Your task to perform on an android device: toggle airplane mode Image 0: 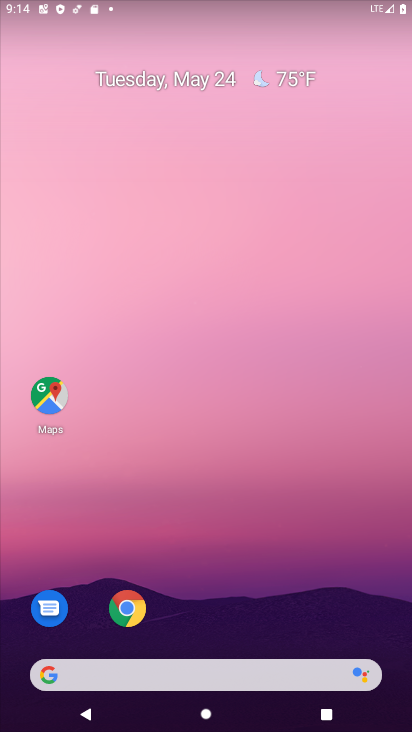
Step 0: drag from (287, 438) to (226, 30)
Your task to perform on an android device: toggle airplane mode Image 1: 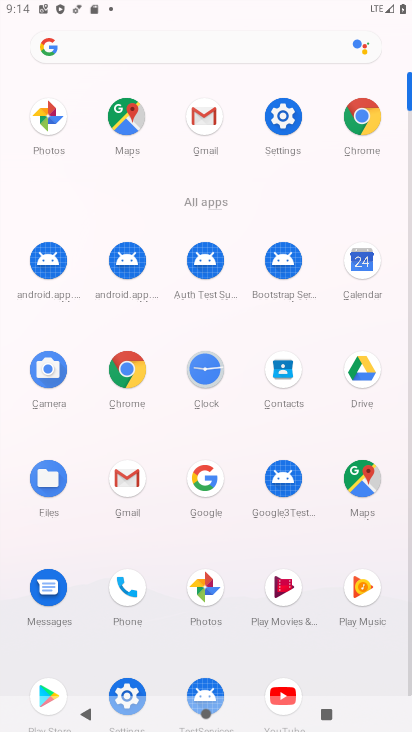
Step 1: click (279, 114)
Your task to perform on an android device: toggle airplane mode Image 2: 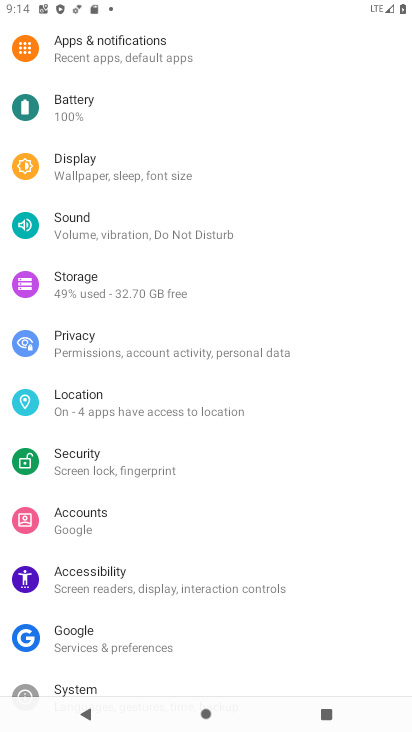
Step 2: drag from (223, 113) to (205, 648)
Your task to perform on an android device: toggle airplane mode Image 3: 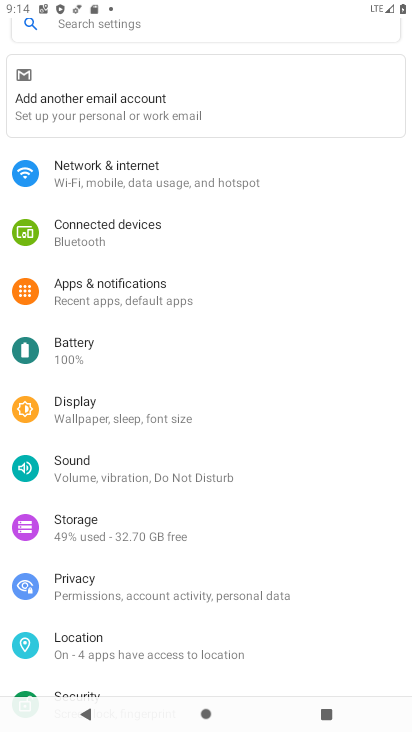
Step 3: click (184, 183)
Your task to perform on an android device: toggle airplane mode Image 4: 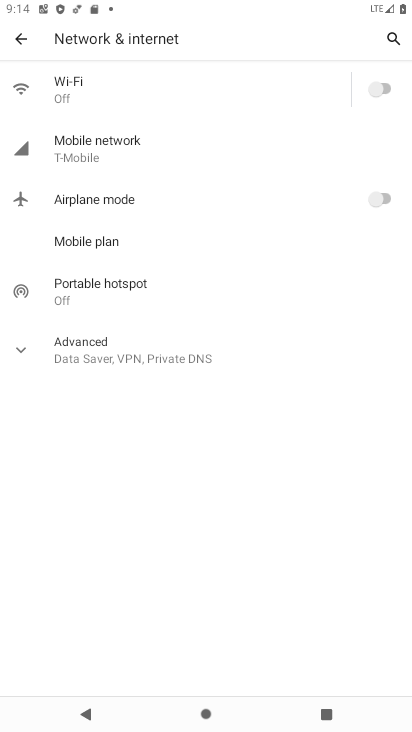
Step 4: click (381, 197)
Your task to perform on an android device: toggle airplane mode Image 5: 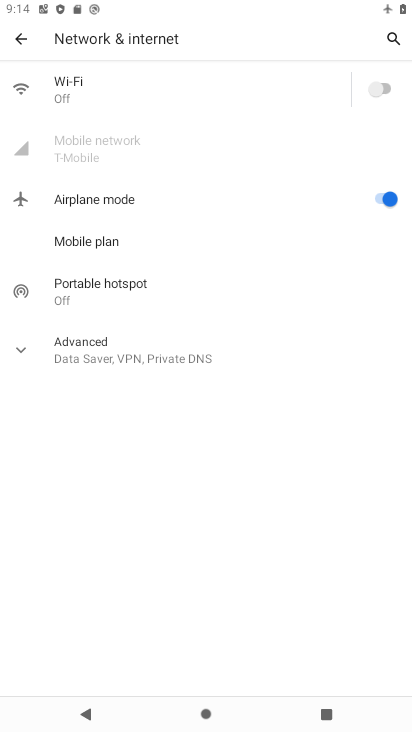
Step 5: task complete